Your task to perform on an android device: Open Youtube and go to "Your channel" Image 0: 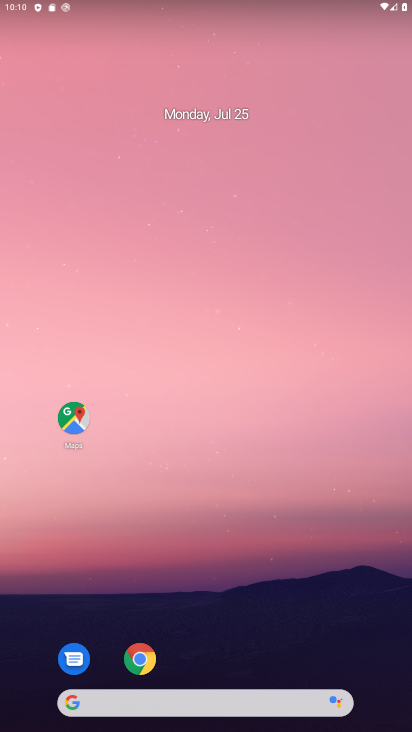
Step 0: drag from (211, 695) to (203, 142)
Your task to perform on an android device: Open Youtube and go to "Your channel" Image 1: 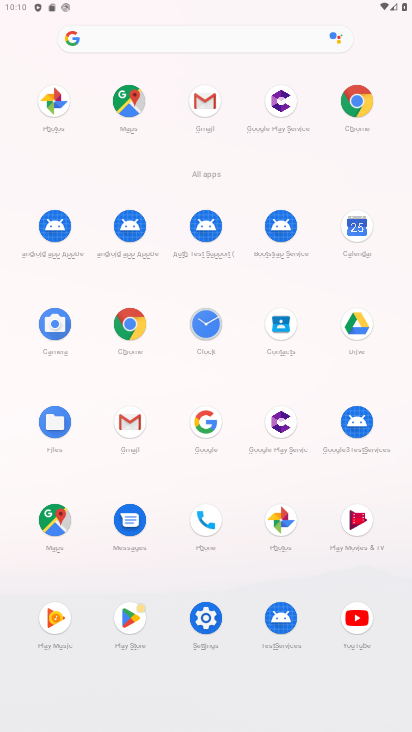
Step 1: click (356, 615)
Your task to perform on an android device: Open Youtube and go to "Your channel" Image 2: 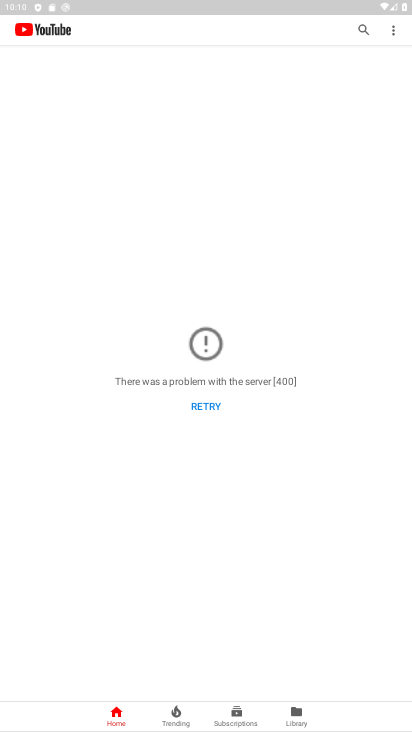
Step 2: click (394, 28)
Your task to perform on an android device: Open Youtube and go to "Your channel" Image 3: 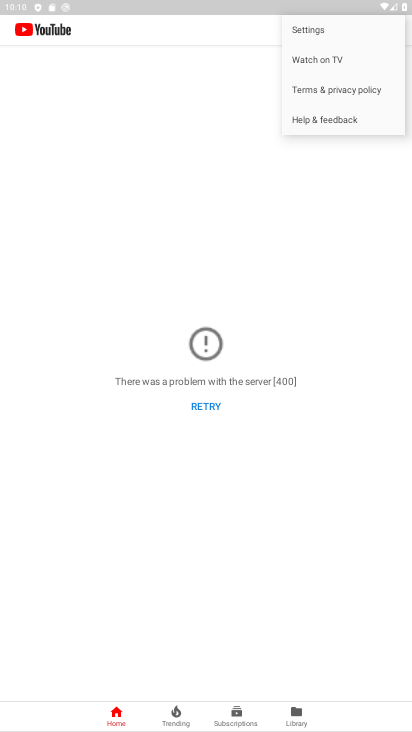
Step 3: click (311, 29)
Your task to perform on an android device: Open Youtube and go to "Your channel" Image 4: 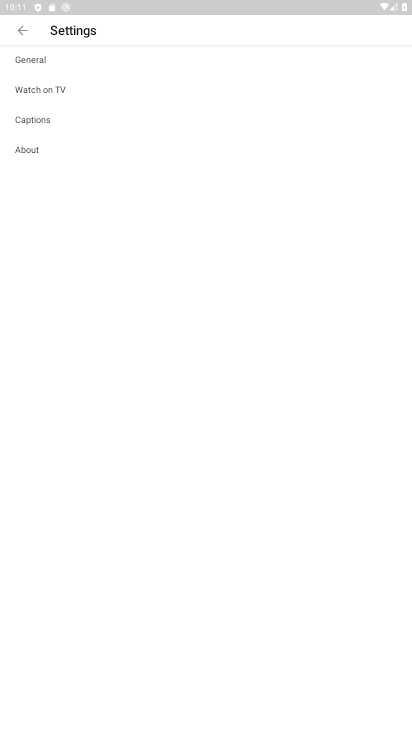
Step 4: task complete